Your task to perform on an android device: Find coffee shops on Maps Image 0: 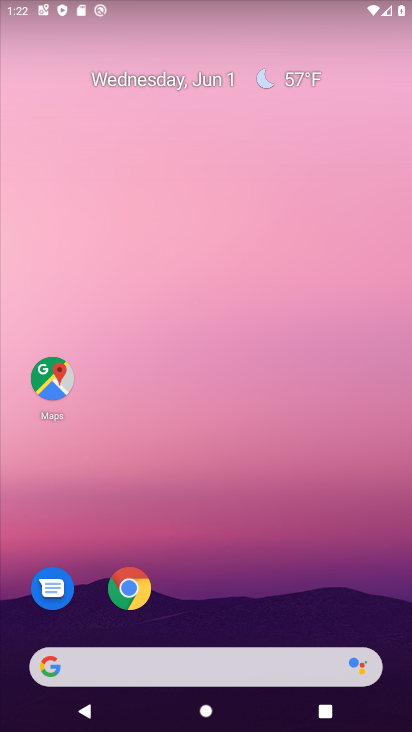
Step 0: click (60, 370)
Your task to perform on an android device: Find coffee shops on Maps Image 1: 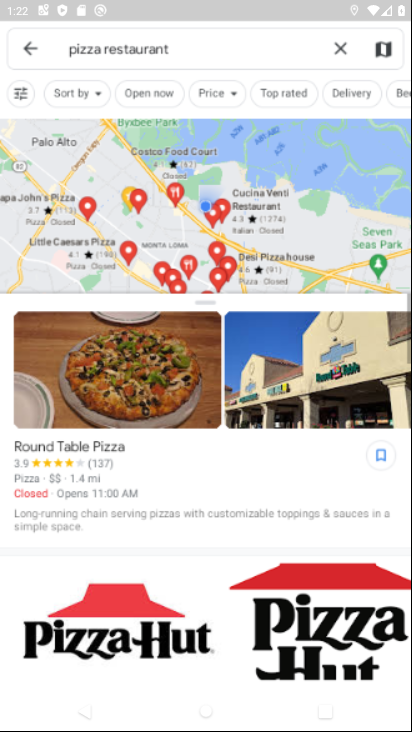
Step 1: click (346, 43)
Your task to perform on an android device: Find coffee shops on Maps Image 2: 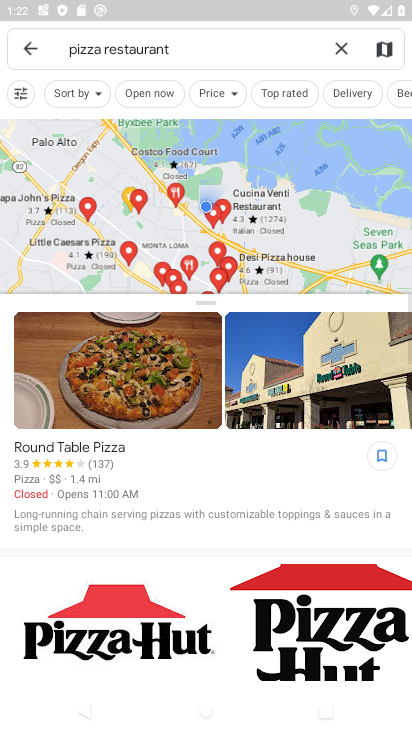
Step 2: click (338, 52)
Your task to perform on an android device: Find coffee shops on Maps Image 3: 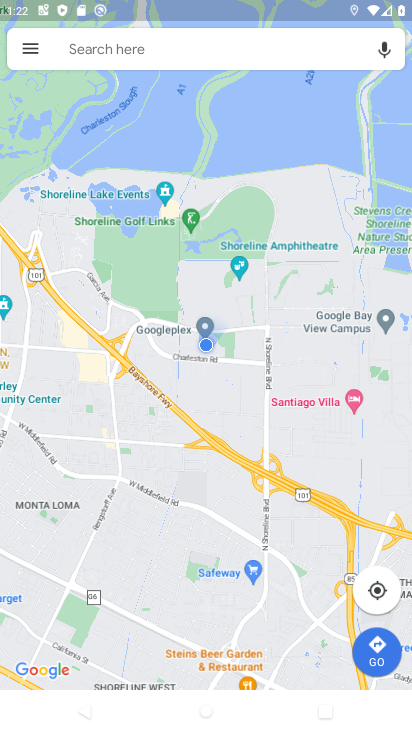
Step 3: click (209, 38)
Your task to perform on an android device: Find coffee shops on Maps Image 4: 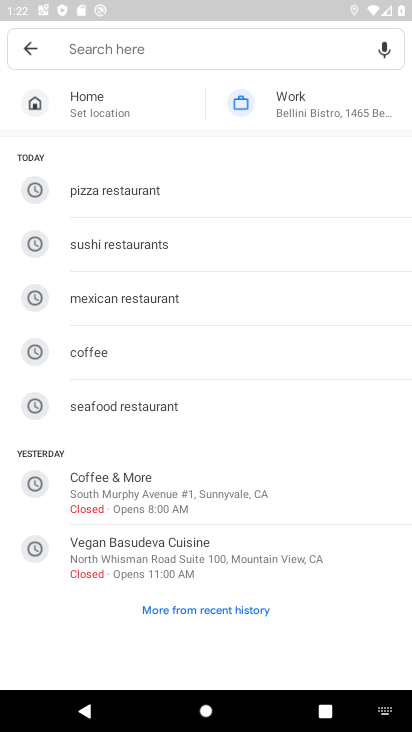
Step 4: click (155, 352)
Your task to perform on an android device: Find coffee shops on Maps Image 5: 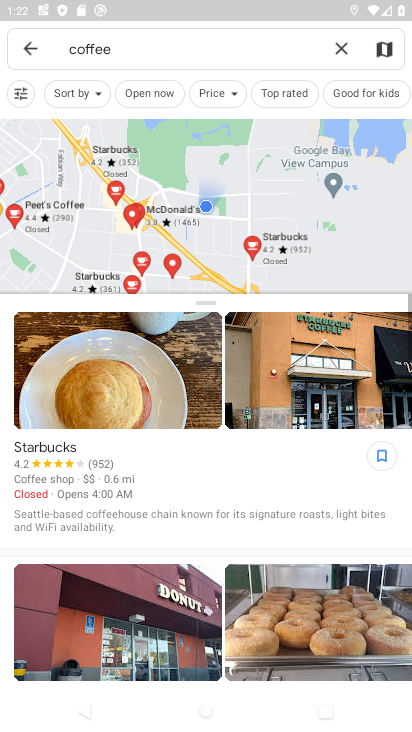
Step 5: task complete